Your task to perform on an android device: Do I have any events today? Image 0: 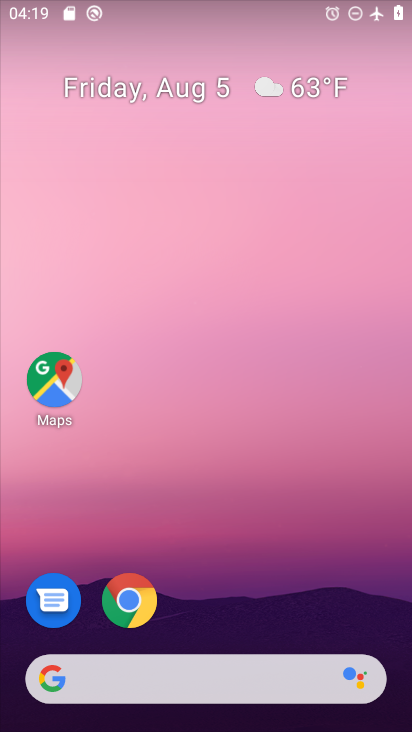
Step 0: drag from (207, 690) to (239, 61)
Your task to perform on an android device: Do I have any events today? Image 1: 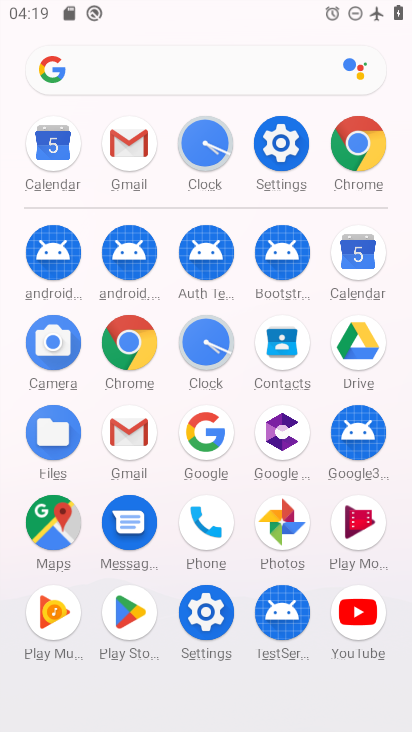
Step 1: click (356, 257)
Your task to perform on an android device: Do I have any events today? Image 2: 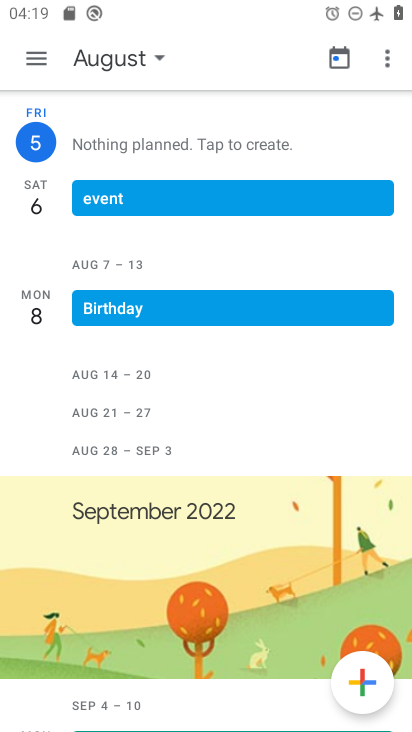
Step 2: click (192, 142)
Your task to perform on an android device: Do I have any events today? Image 3: 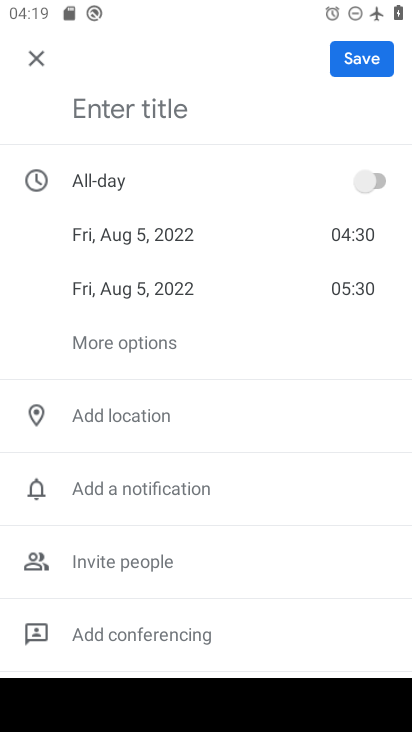
Step 3: type "meeting"
Your task to perform on an android device: Do I have any events today? Image 4: 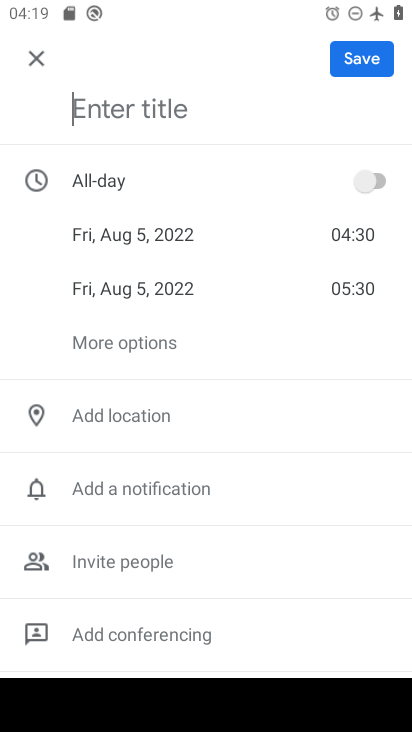
Step 4: click (379, 185)
Your task to perform on an android device: Do I have any events today? Image 5: 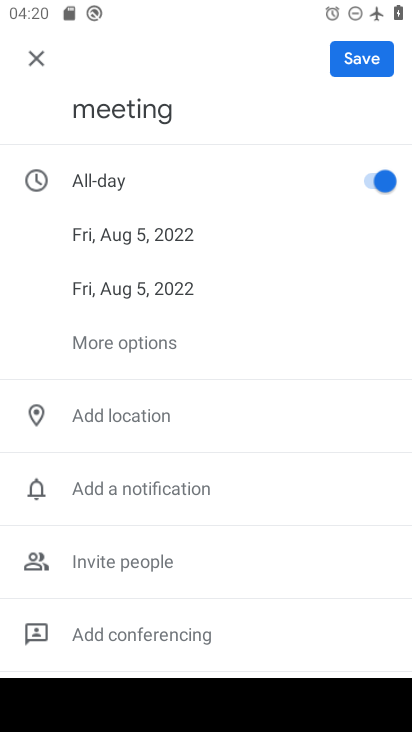
Step 5: click (358, 62)
Your task to perform on an android device: Do I have any events today? Image 6: 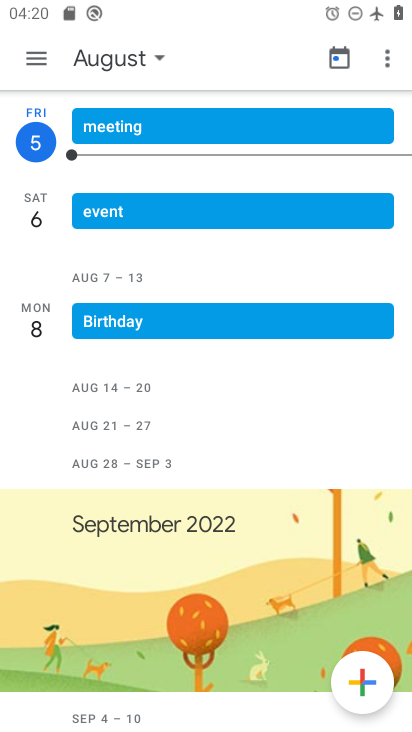
Step 6: task complete